Your task to perform on an android device: turn off airplane mode Image 0: 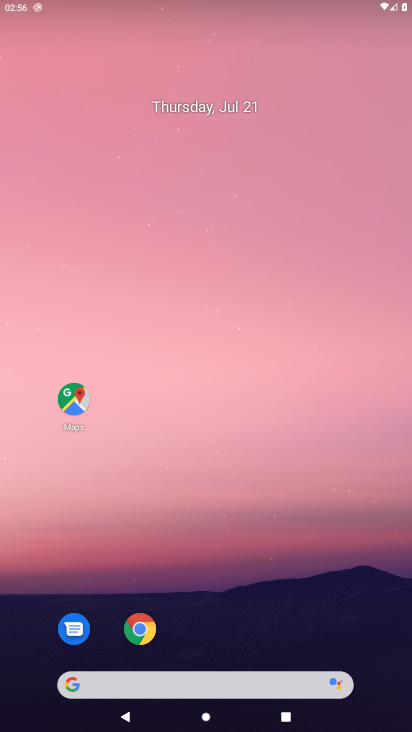
Step 0: click (18, 694)
Your task to perform on an android device: turn off airplane mode Image 1: 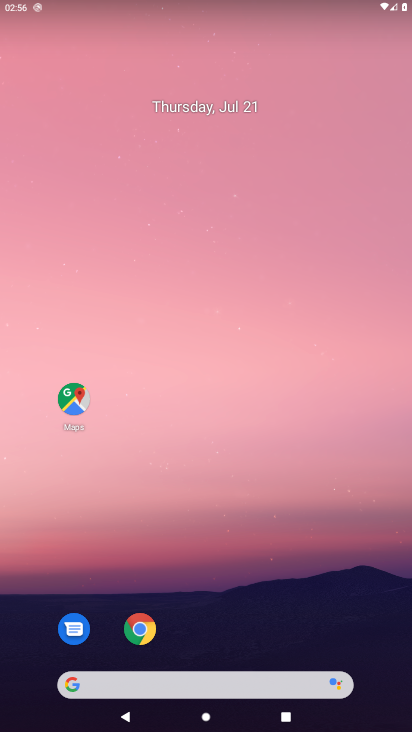
Step 1: drag from (30, 702) to (276, 27)
Your task to perform on an android device: turn off airplane mode Image 2: 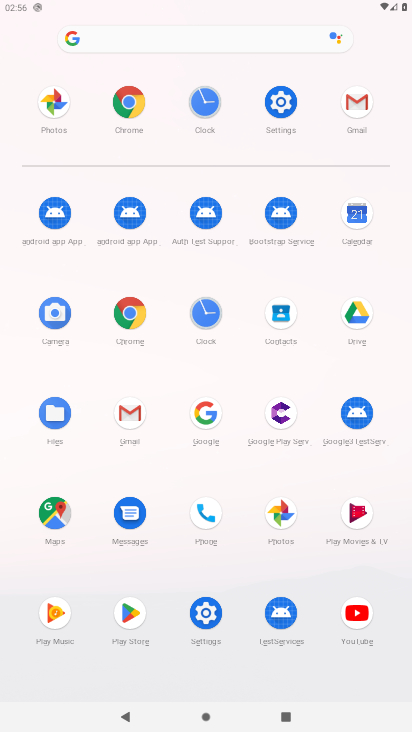
Step 2: click (212, 597)
Your task to perform on an android device: turn off airplane mode Image 3: 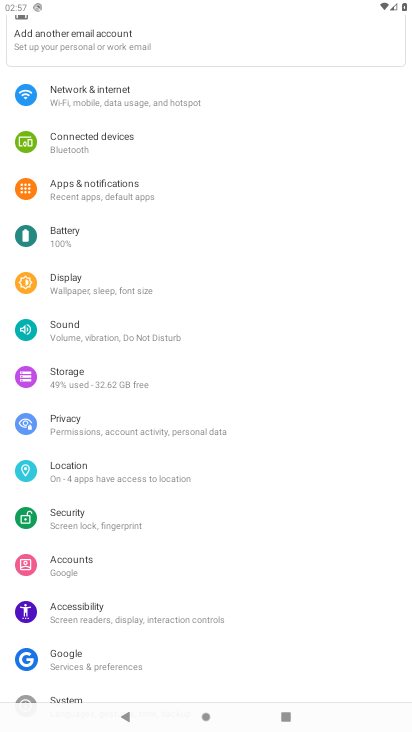
Step 3: click (126, 99)
Your task to perform on an android device: turn off airplane mode Image 4: 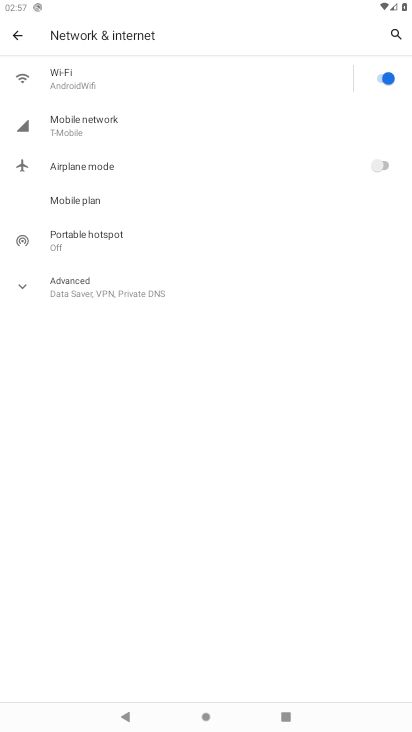
Step 4: task complete